Your task to perform on an android device: show emergency info Image 0: 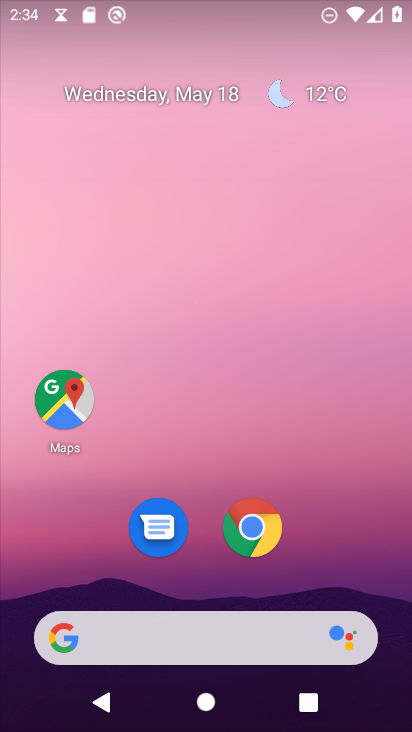
Step 0: drag from (347, 554) to (236, 18)
Your task to perform on an android device: show emergency info Image 1: 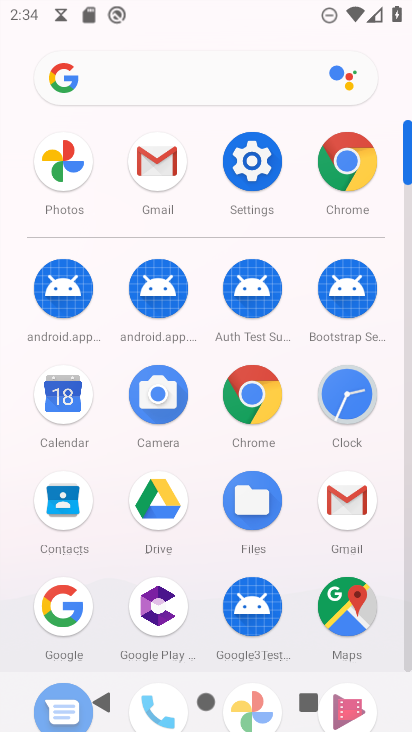
Step 1: click (259, 159)
Your task to perform on an android device: show emergency info Image 2: 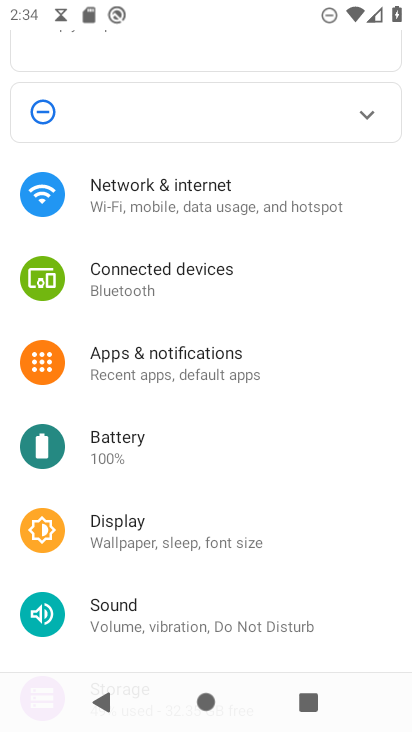
Step 2: drag from (268, 612) to (220, 152)
Your task to perform on an android device: show emergency info Image 3: 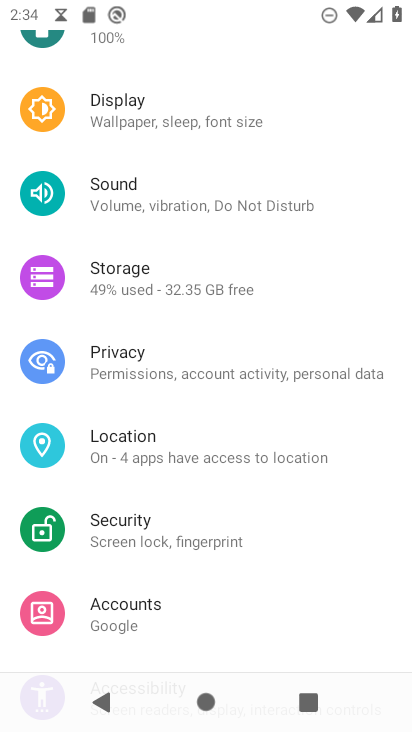
Step 3: drag from (204, 560) to (247, 147)
Your task to perform on an android device: show emergency info Image 4: 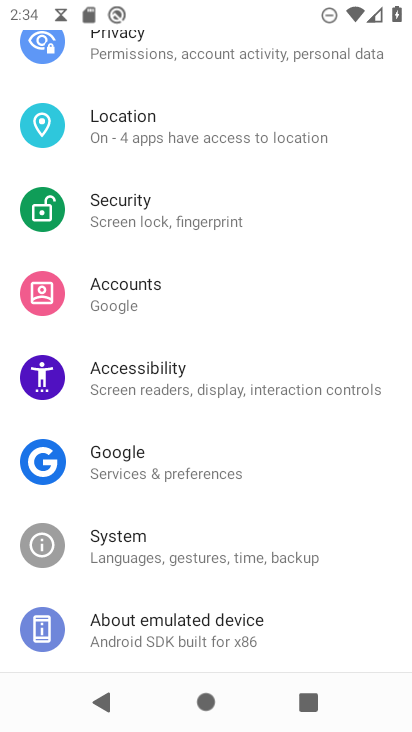
Step 4: click (199, 615)
Your task to perform on an android device: show emergency info Image 5: 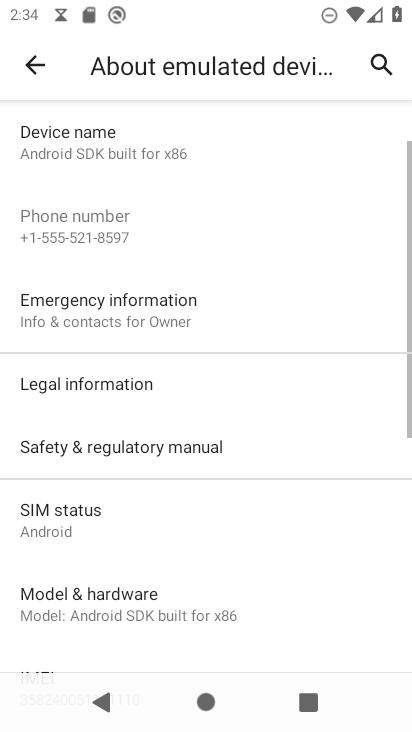
Step 5: click (196, 318)
Your task to perform on an android device: show emergency info Image 6: 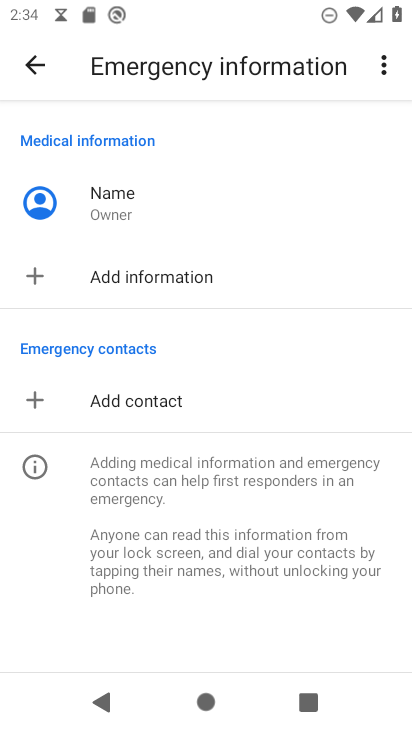
Step 6: task complete